Your task to perform on an android device: manage bookmarks in the chrome app Image 0: 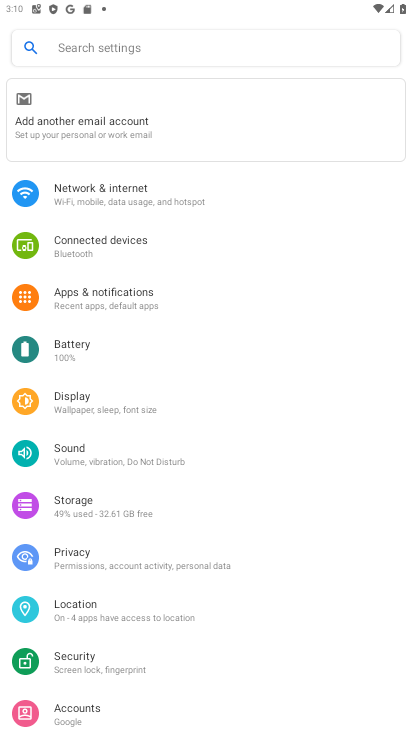
Step 0: press home button
Your task to perform on an android device: manage bookmarks in the chrome app Image 1: 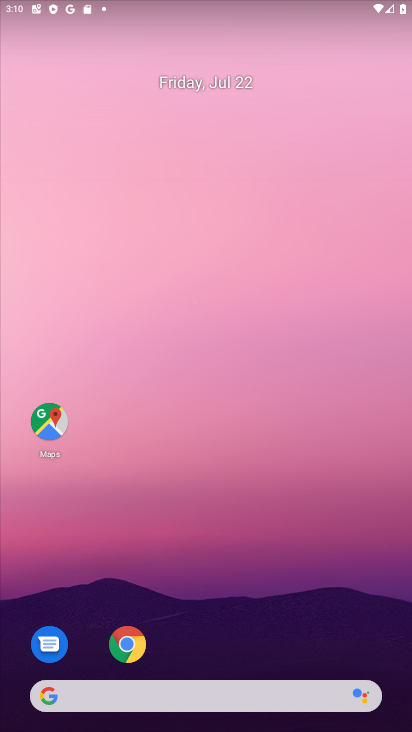
Step 1: click (125, 647)
Your task to perform on an android device: manage bookmarks in the chrome app Image 2: 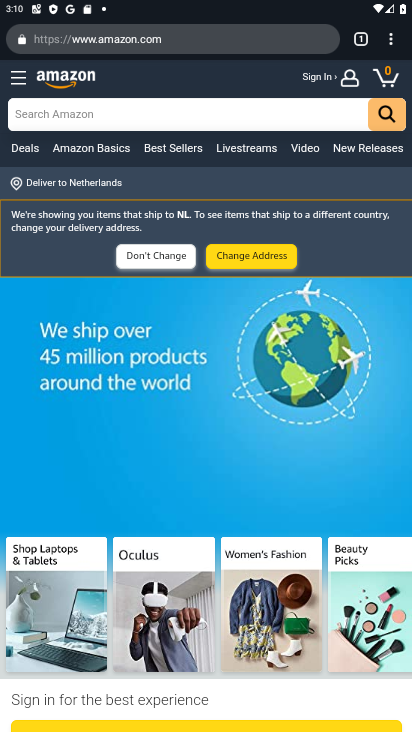
Step 2: click (398, 42)
Your task to perform on an android device: manage bookmarks in the chrome app Image 3: 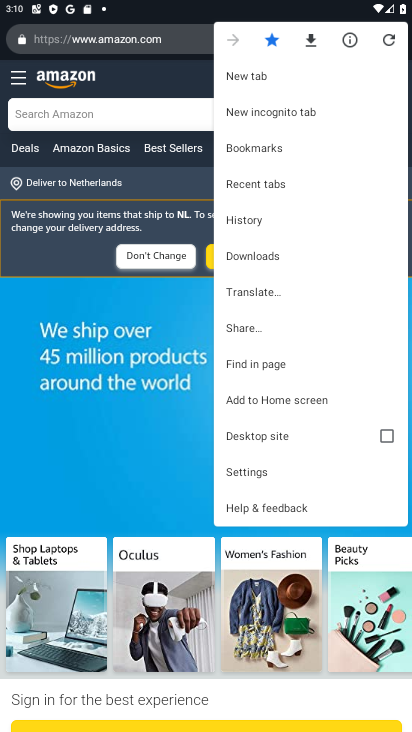
Step 3: click (276, 139)
Your task to perform on an android device: manage bookmarks in the chrome app Image 4: 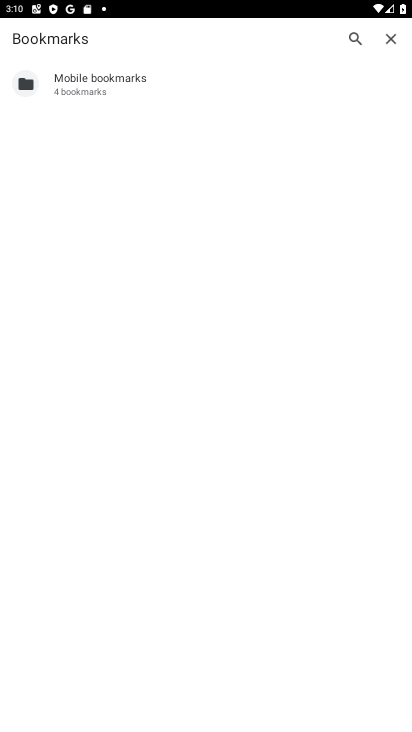
Step 4: task complete